Your task to perform on an android device: delete the emails in spam in the gmail app Image 0: 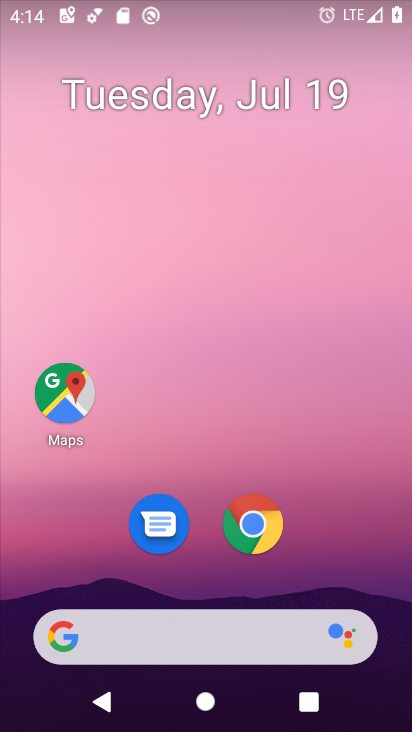
Step 0: drag from (228, 448) to (213, 334)
Your task to perform on an android device: delete the emails in spam in the gmail app Image 1: 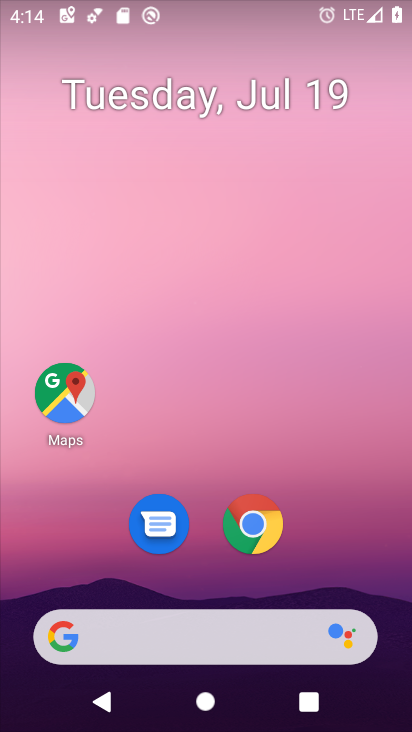
Step 1: drag from (316, 523) to (312, 31)
Your task to perform on an android device: delete the emails in spam in the gmail app Image 2: 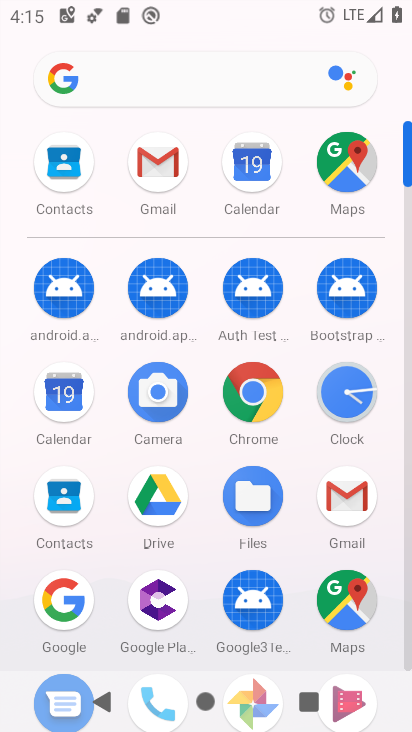
Step 2: click (160, 176)
Your task to perform on an android device: delete the emails in spam in the gmail app Image 3: 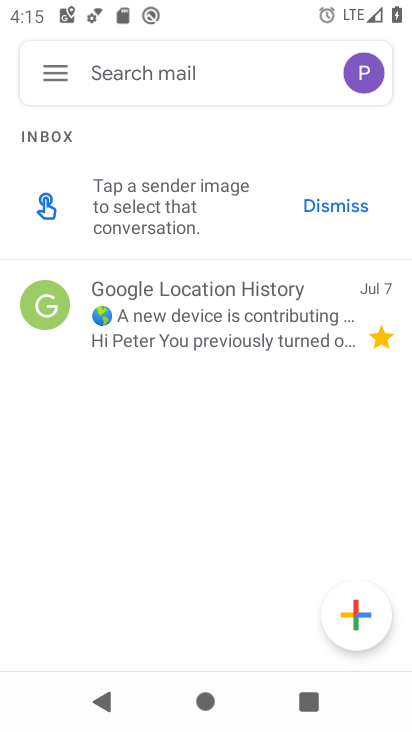
Step 3: click (57, 80)
Your task to perform on an android device: delete the emails in spam in the gmail app Image 4: 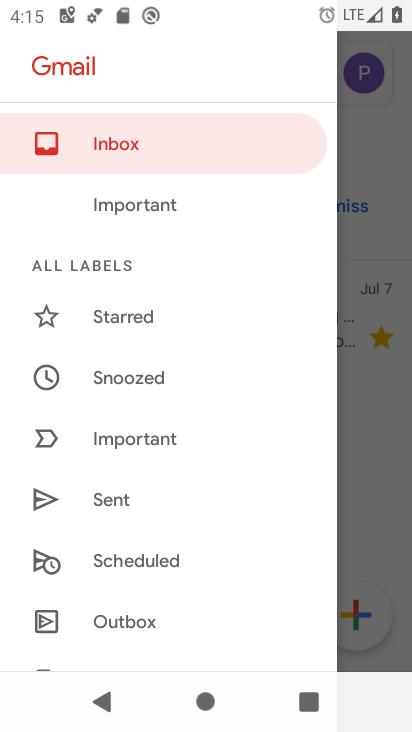
Step 4: drag from (148, 508) to (211, 76)
Your task to perform on an android device: delete the emails in spam in the gmail app Image 5: 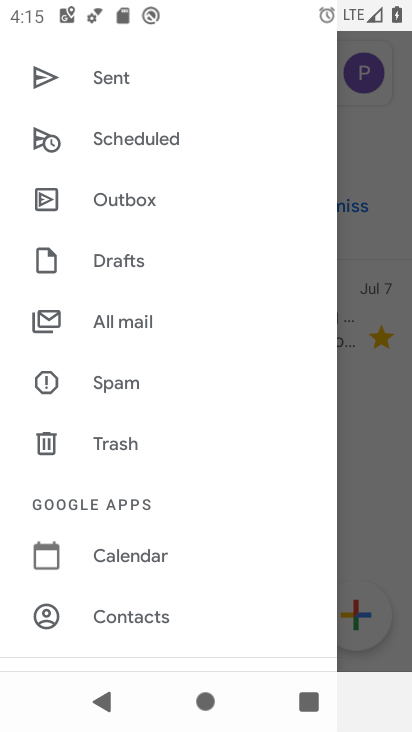
Step 5: click (124, 377)
Your task to perform on an android device: delete the emails in spam in the gmail app Image 6: 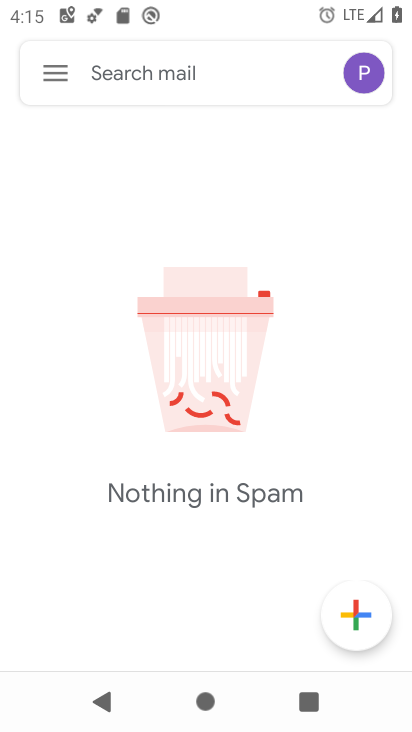
Step 6: task complete